Your task to perform on an android device: Open Youtube and go to "Your channel" Image 0: 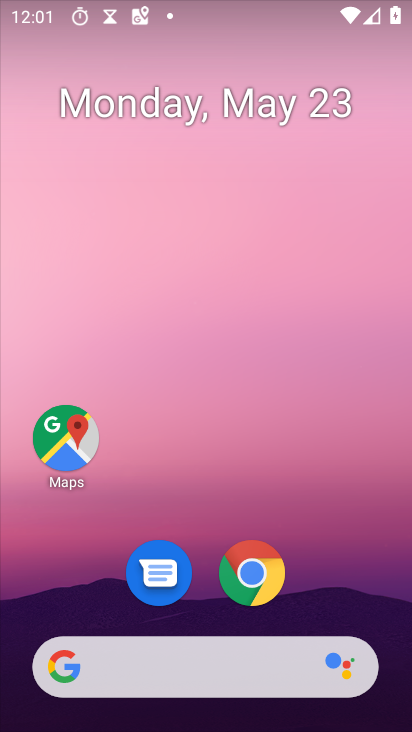
Step 0: press home button
Your task to perform on an android device: Open Youtube and go to "Your channel" Image 1: 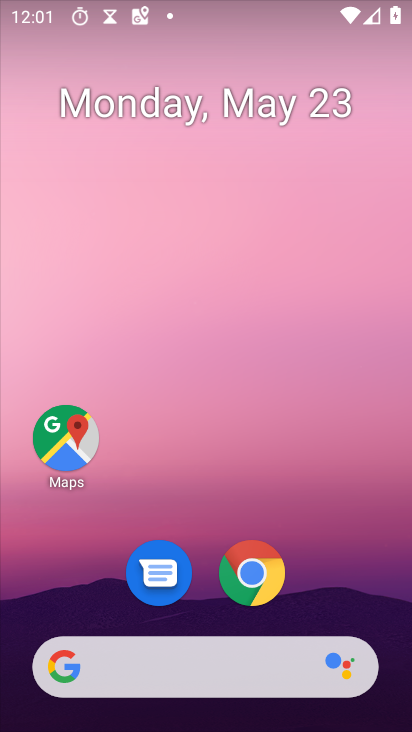
Step 1: drag from (146, 673) to (305, 175)
Your task to perform on an android device: Open Youtube and go to "Your channel" Image 2: 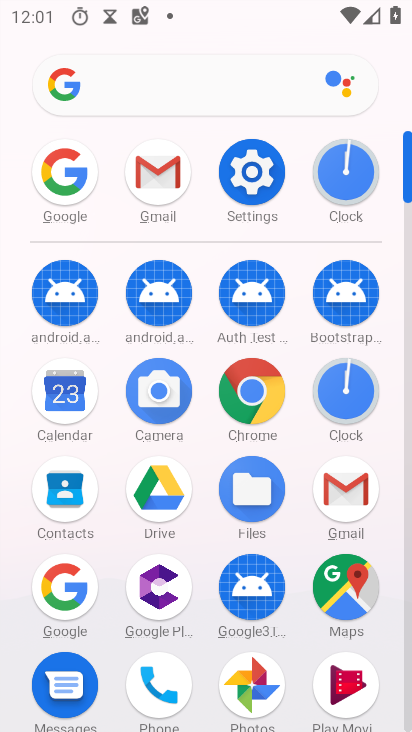
Step 2: drag from (205, 648) to (299, 340)
Your task to perform on an android device: Open Youtube and go to "Your channel" Image 3: 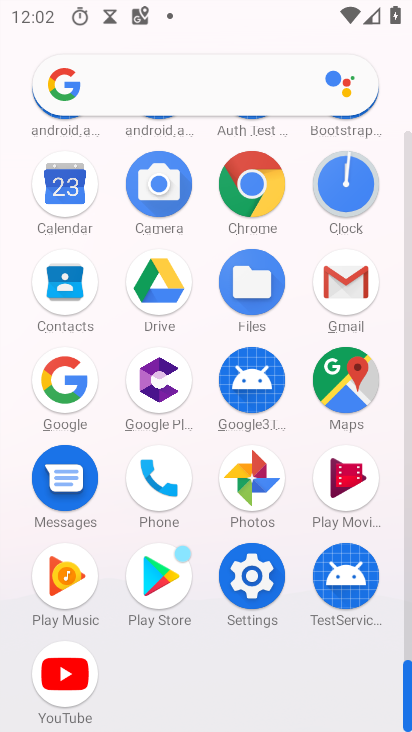
Step 3: click (66, 677)
Your task to perform on an android device: Open Youtube and go to "Your channel" Image 4: 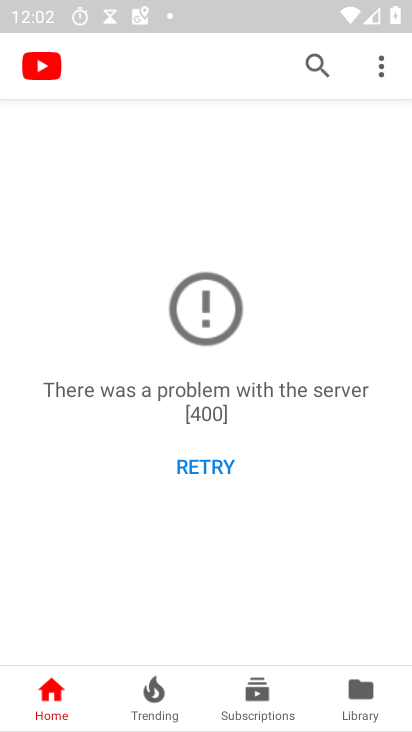
Step 4: click (213, 454)
Your task to perform on an android device: Open Youtube and go to "Your channel" Image 5: 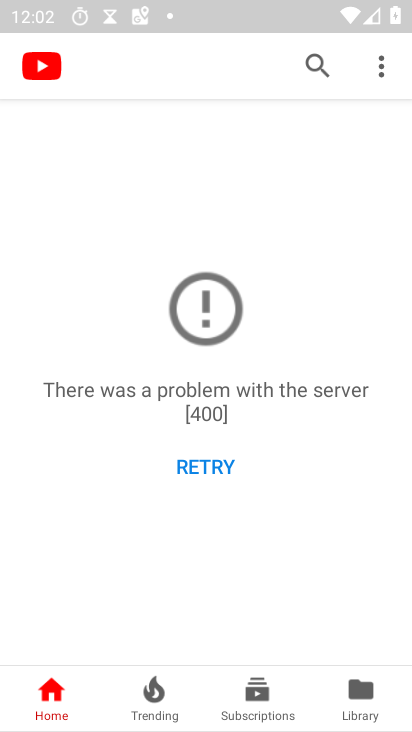
Step 5: click (199, 467)
Your task to perform on an android device: Open Youtube and go to "Your channel" Image 6: 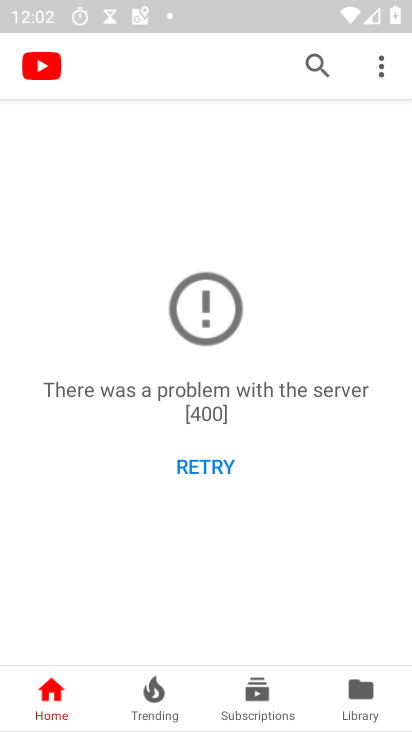
Step 6: task complete